Your task to perform on an android device: add a contact Image 0: 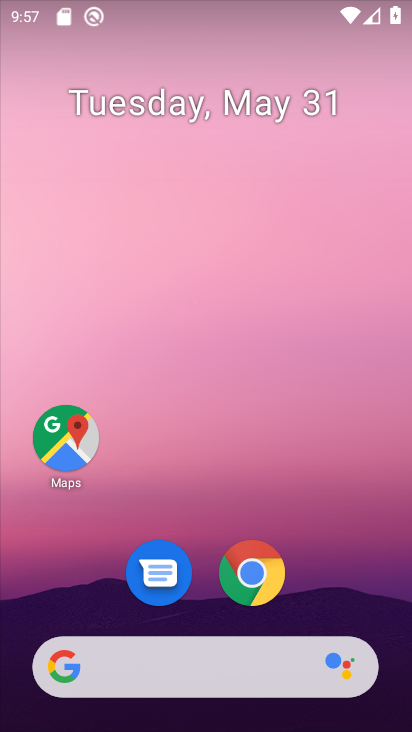
Step 0: drag from (218, 598) to (256, 106)
Your task to perform on an android device: add a contact Image 1: 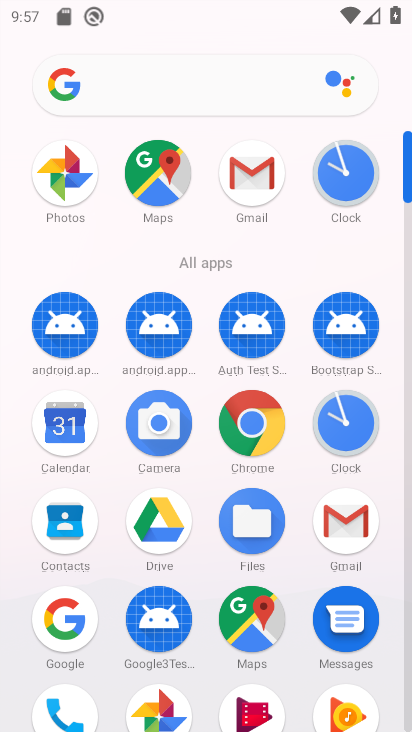
Step 1: click (71, 691)
Your task to perform on an android device: add a contact Image 2: 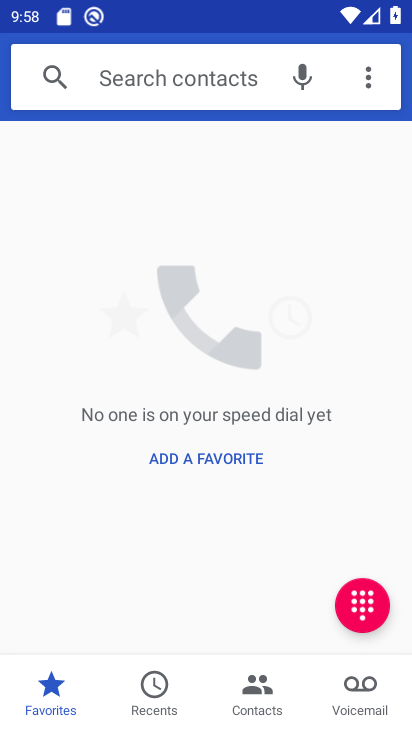
Step 2: click (256, 679)
Your task to perform on an android device: add a contact Image 3: 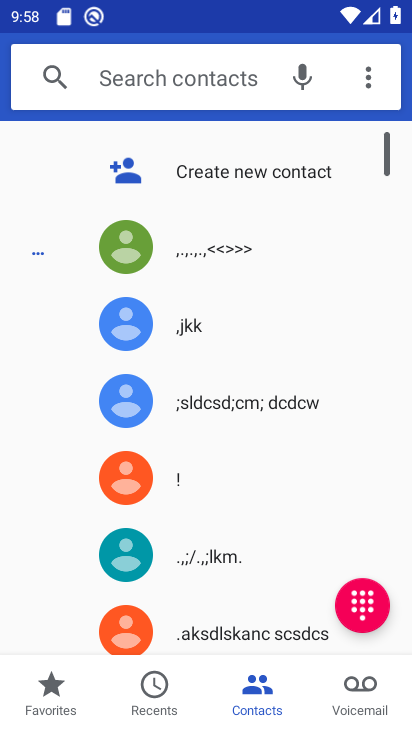
Step 3: click (201, 188)
Your task to perform on an android device: add a contact Image 4: 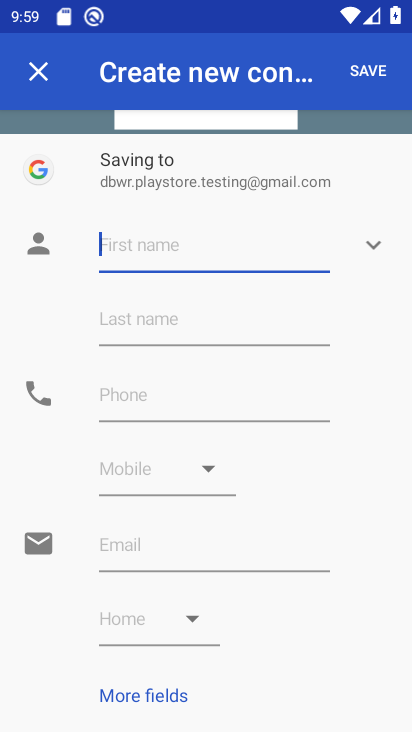
Step 4: type "oijhgv"
Your task to perform on an android device: add a contact Image 5: 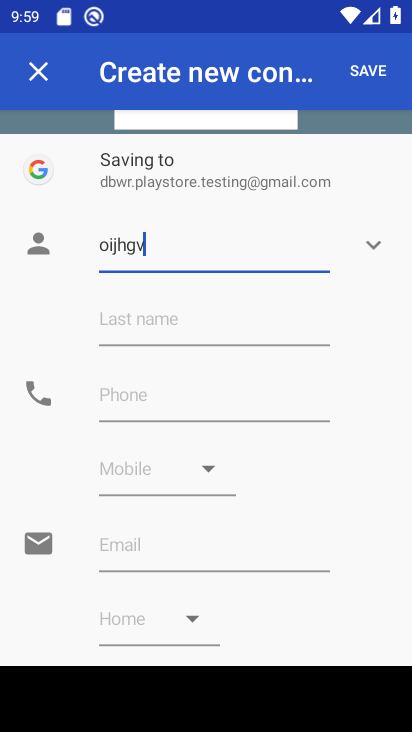
Step 5: type ""
Your task to perform on an android device: add a contact Image 6: 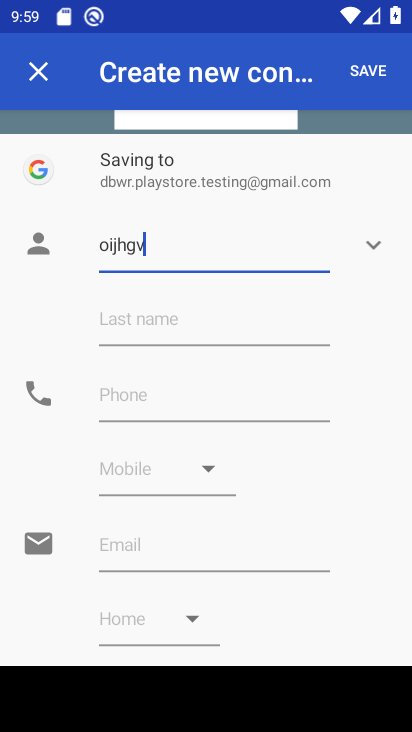
Step 6: click (149, 388)
Your task to perform on an android device: add a contact Image 7: 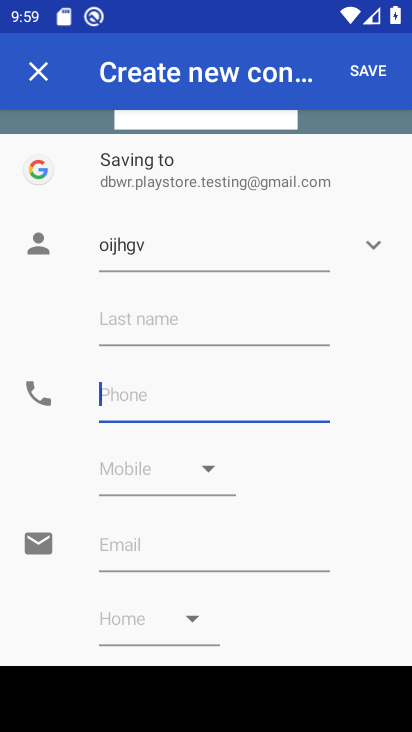
Step 7: type "987654567"
Your task to perform on an android device: add a contact Image 8: 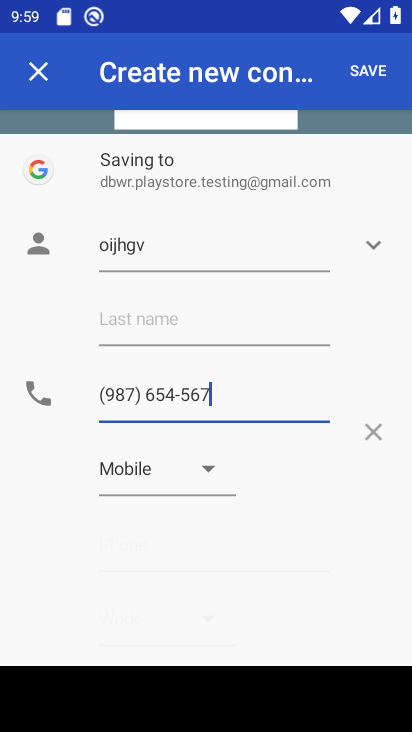
Step 8: type ""
Your task to perform on an android device: add a contact Image 9: 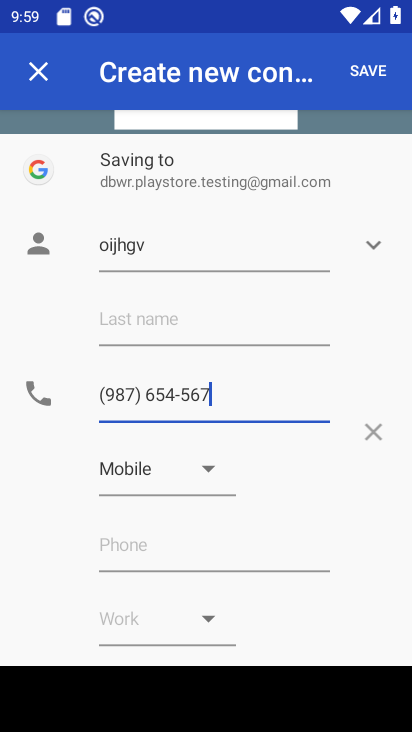
Step 9: click (375, 73)
Your task to perform on an android device: add a contact Image 10: 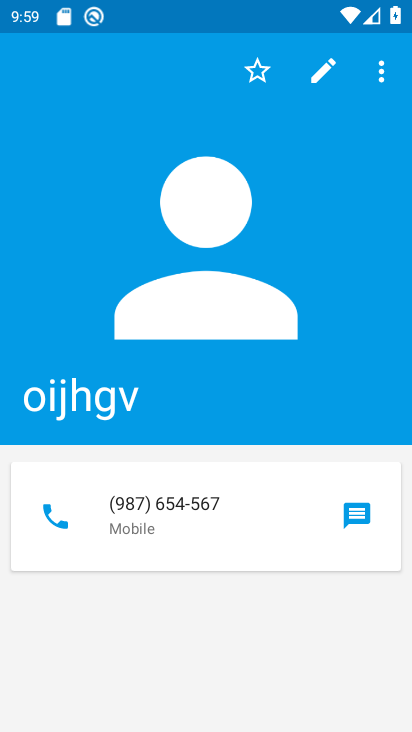
Step 10: task complete